Your task to perform on an android device: toggle sleep mode Image 0: 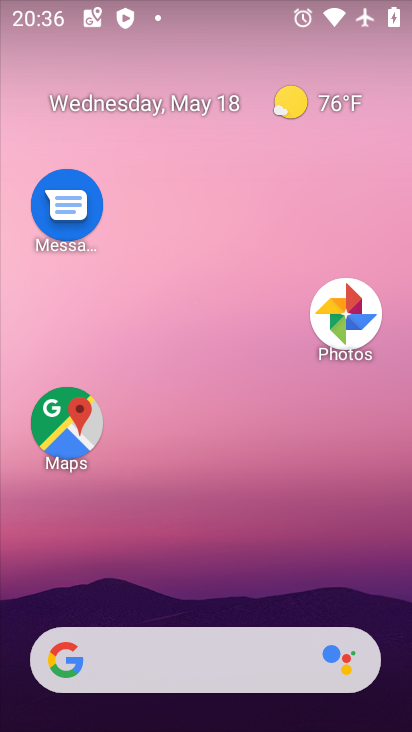
Step 0: drag from (235, 630) to (299, 13)
Your task to perform on an android device: toggle sleep mode Image 1: 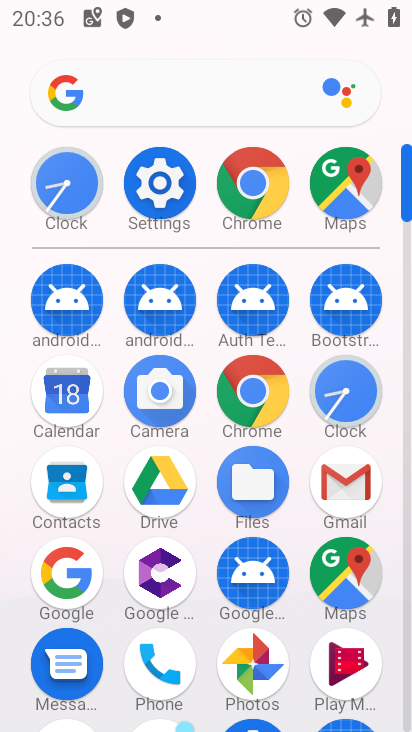
Step 1: click (176, 172)
Your task to perform on an android device: toggle sleep mode Image 2: 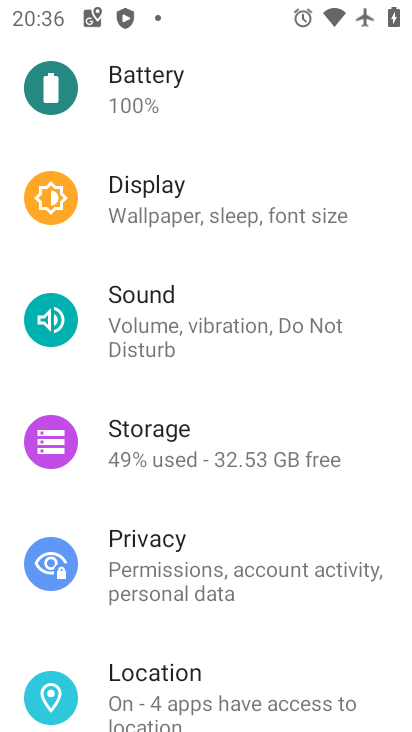
Step 2: click (211, 216)
Your task to perform on an android device: toggle sleep mode Image 3: 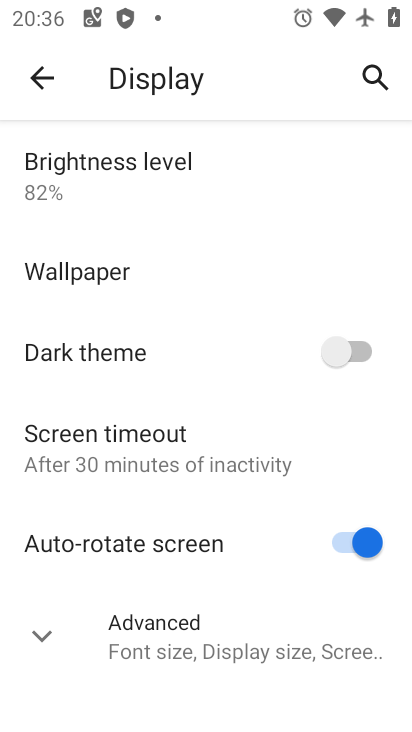
Step 3: task complete